Your task to perform on an android device: open app "Expedia: Hotels, Flights & Car" (install if not already installed) Image 0: 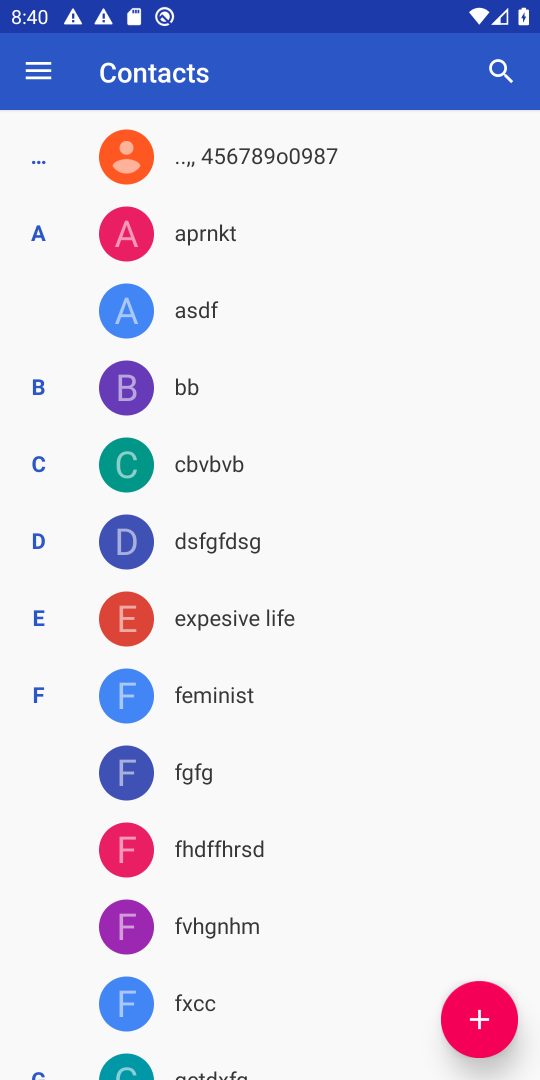
Step 0: press home button
Your task to perform on an android device: open app "Expedia: Hotels, Flights & Car" (install if not already installed) Image 1: 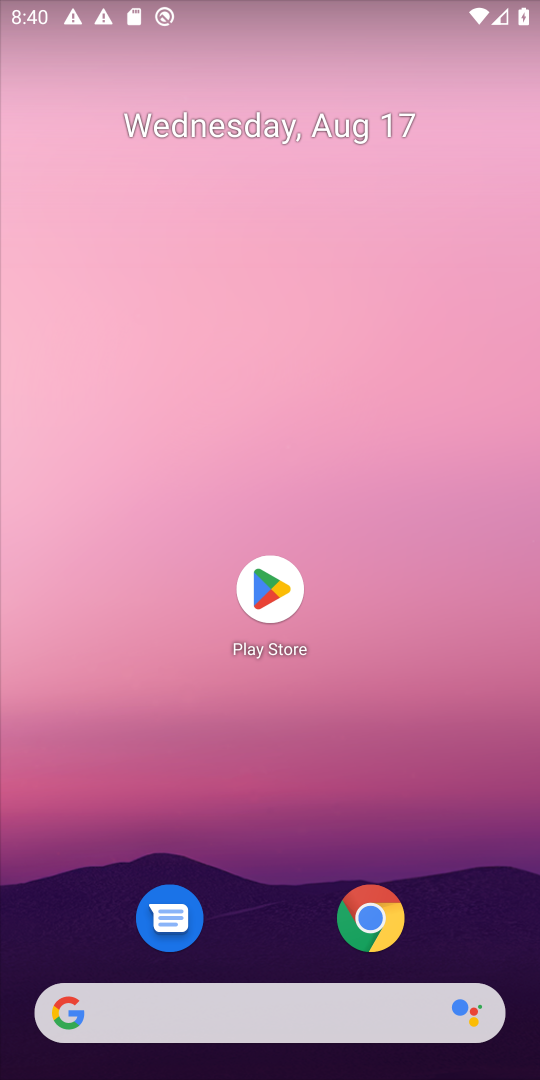
Step 1: click (269, 583)
Your task to perform on an android device: open app "Expedia: Hotels, Flights & Car" (install if not already installed) Image 2: 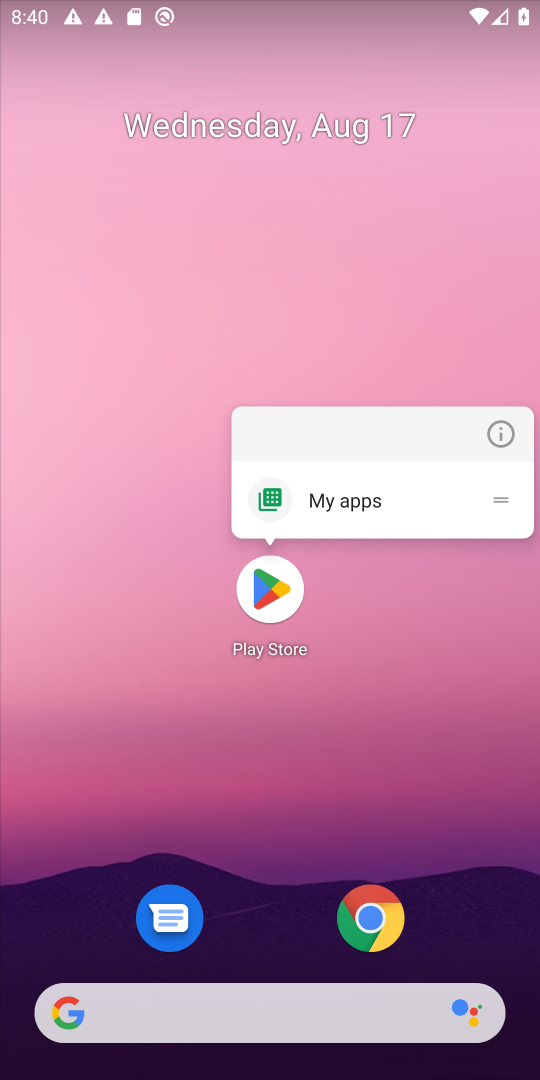
Step 2: click (269, 583)
Your task to perform on an android device: open app "Expedia: Hotels, Flights & Car" (install if not already installed) Image 3: 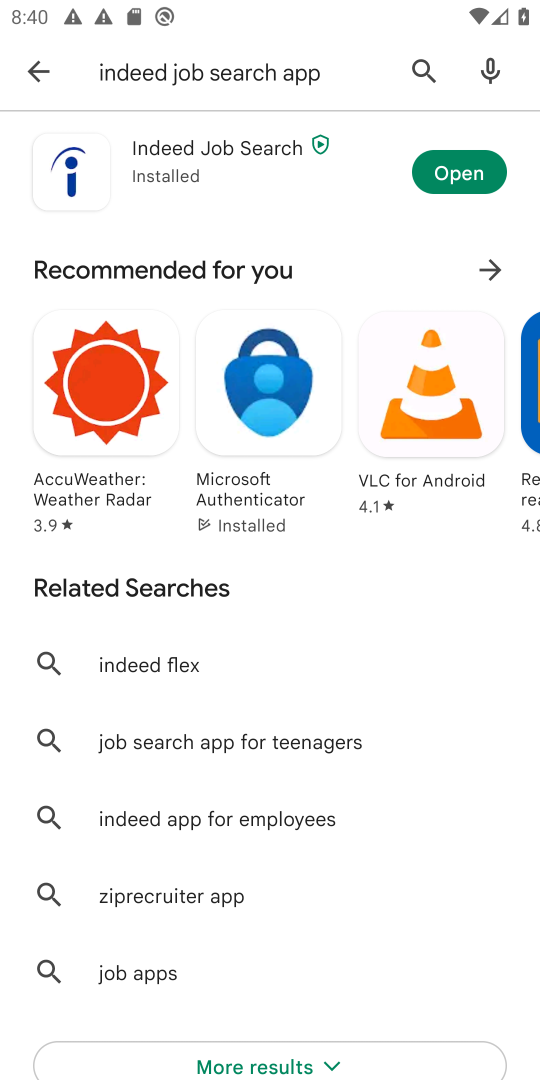
Step 3: click (416, 58)
Your task to perform on an android device: open app "Expedia: Hotels, Flights & Car" (install if not already installed) Image 4: 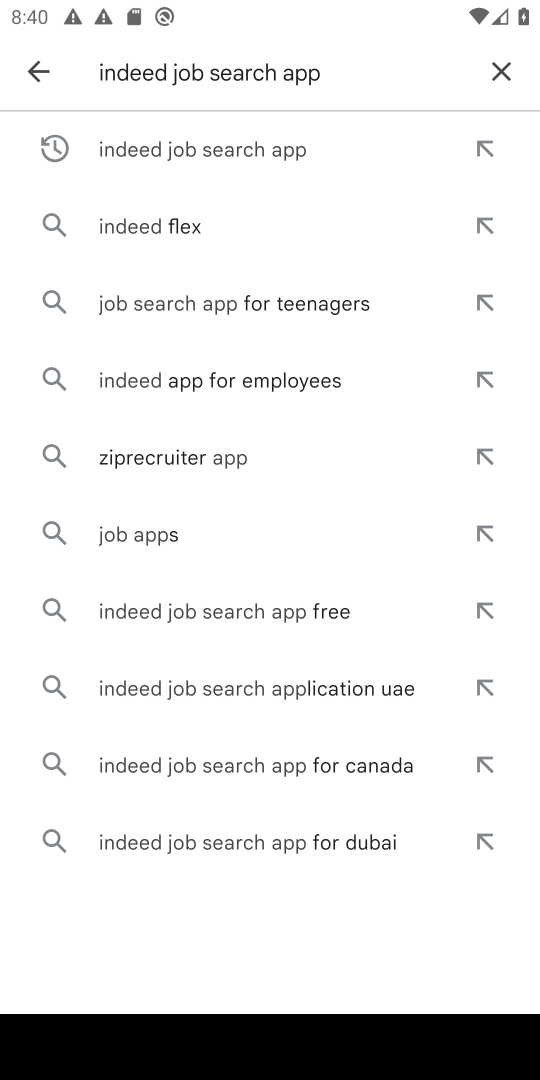
Step 4: click (505, 64)
Your task to perform on an android device: open app "Expedia: Hotels, Flights & Car" (install if not already installed) Image 5: 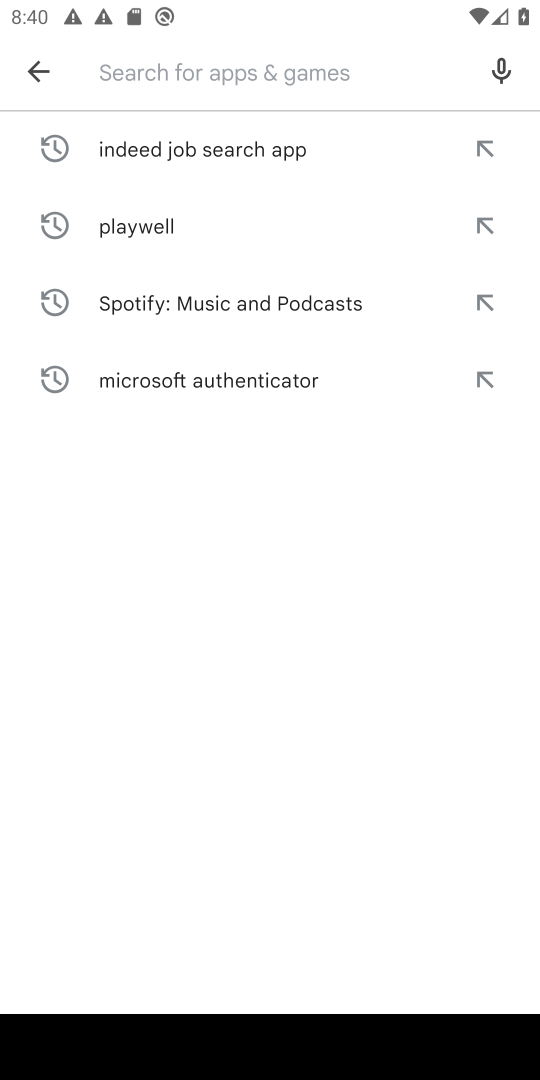
Step 5: type "Expedia: Hotels, Flights & Car"
Your task to perform on an android device: open app "Expedia: Hotels, Flights & Car" (install if not already installed) Image 6: 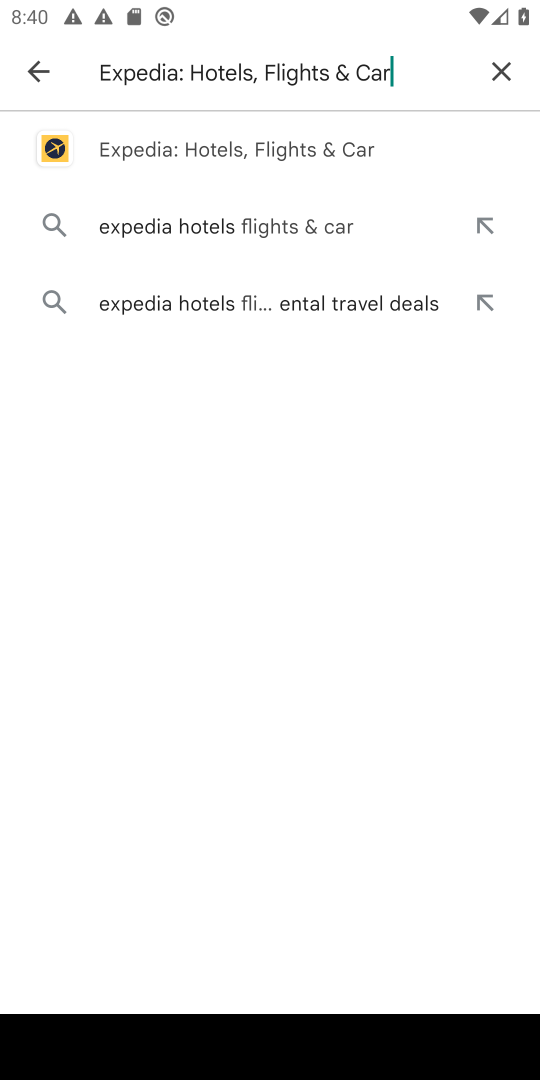
Step 6: click (298, 148)
Your task to perform on an android device: open app "Expedia: Hotels, Flights & Car" (install if not already installed) Image 7: 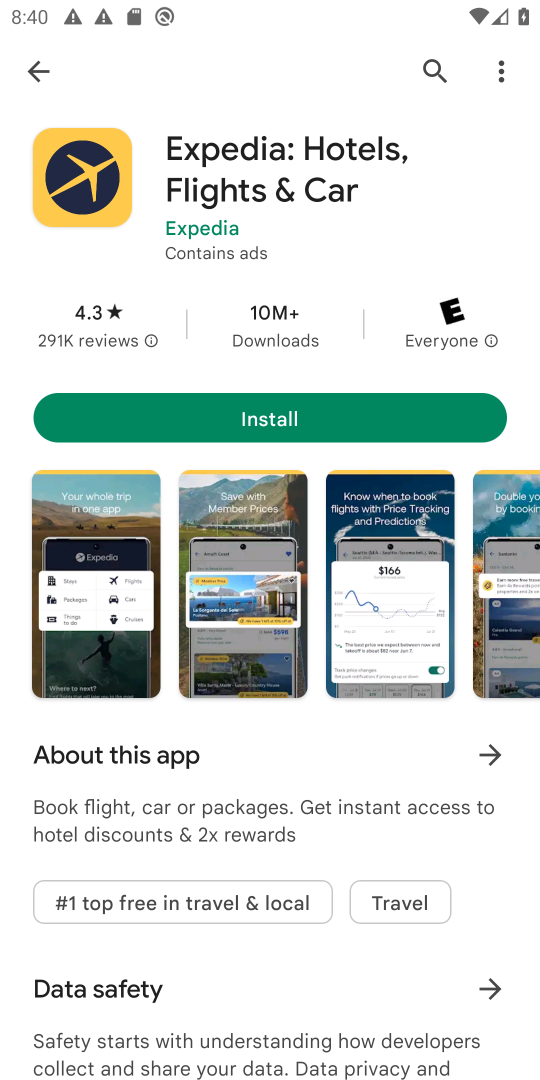
Step 7: click (323, 414)
Your task to perform on an android device: open app "Expedia: Hotels, Flights & Car" (install if not already installed) Image 8: 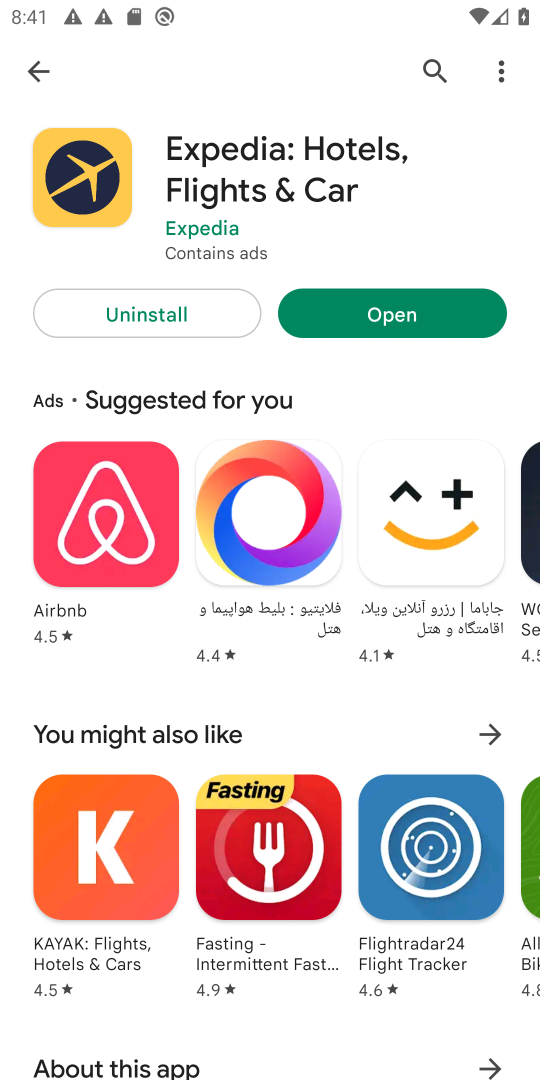
Step 8: click (433, 315)
Your task to perform on an android device: open app "Expedia: Hotels, Flights & Car" (install if not already installed) Image 9: 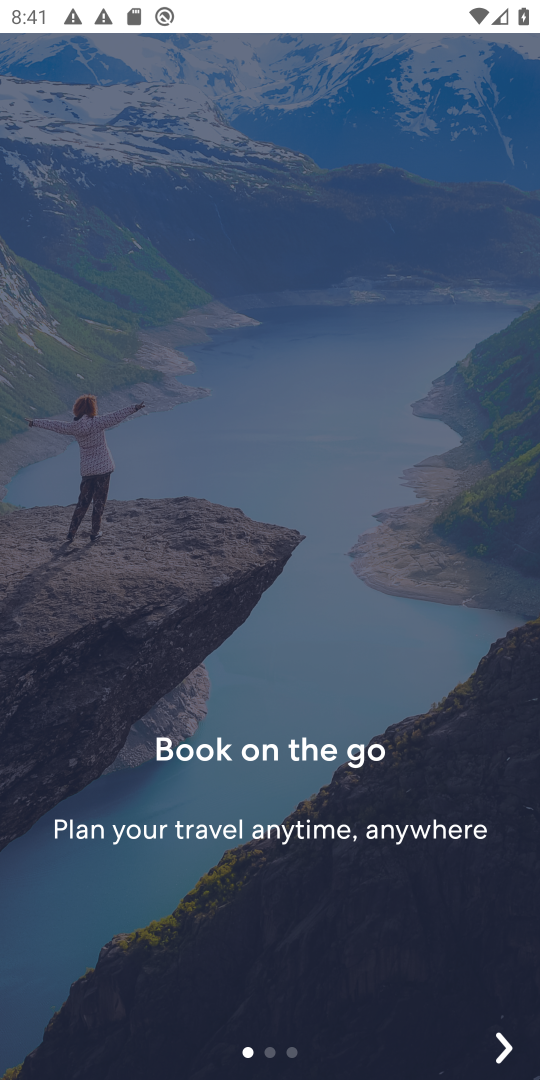
Step 9: task complete